Your task to perform on an android device: Open Android settings Image 0: 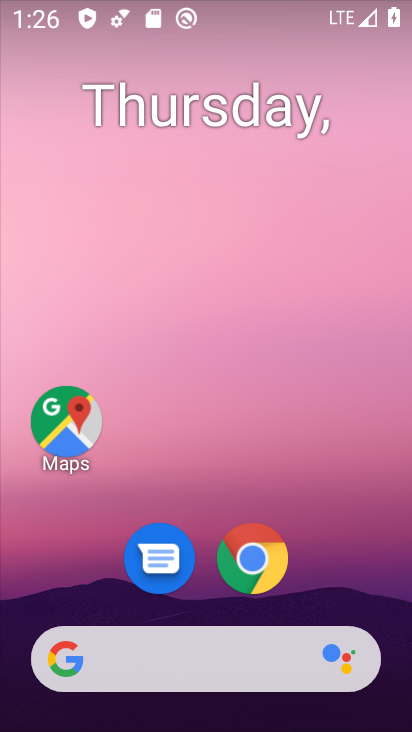
Step 0: drag from (333, 577) to (335, 135)
Your task to perform on an android device: Open Android settings Image 1: 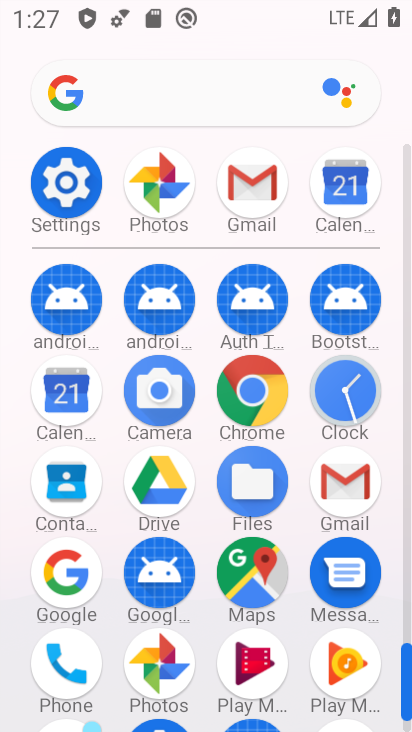
Step 1: drag from (406, 683) to (375, 730)
Your task to perform on an android device: Open Android settings Image 2: 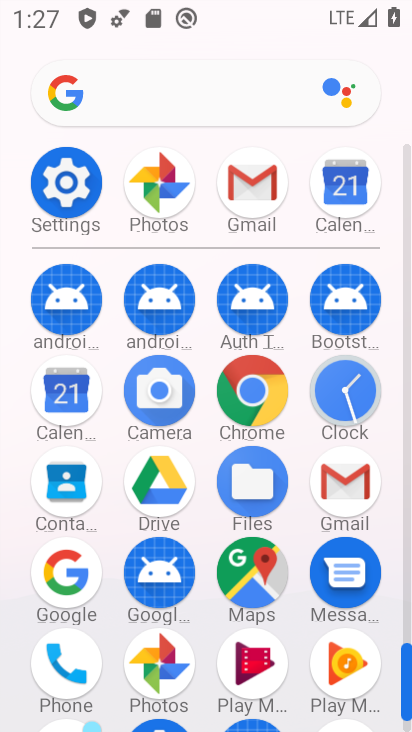
Step 2: click (59, 190)
Your task to perform on an android device: Open Android settings Image 3: 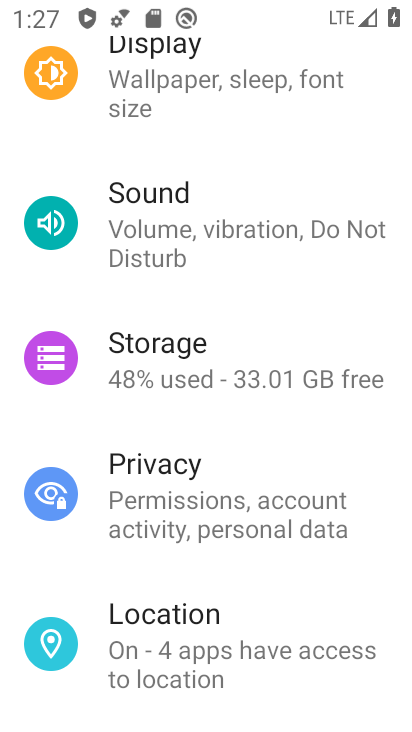
Step 3: drag from (249, 678) to (229, 402)
Your task to perform on an android device: Open Android settings Image 4: 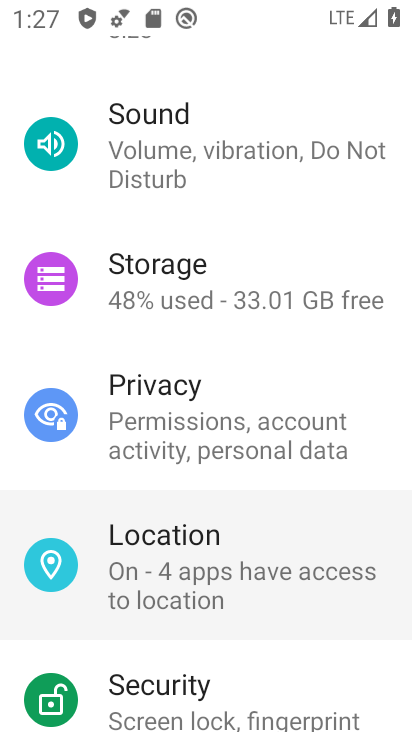
Step 4: click (231, 227)
Your task to perform on an android device: Open Android settings Image 5: 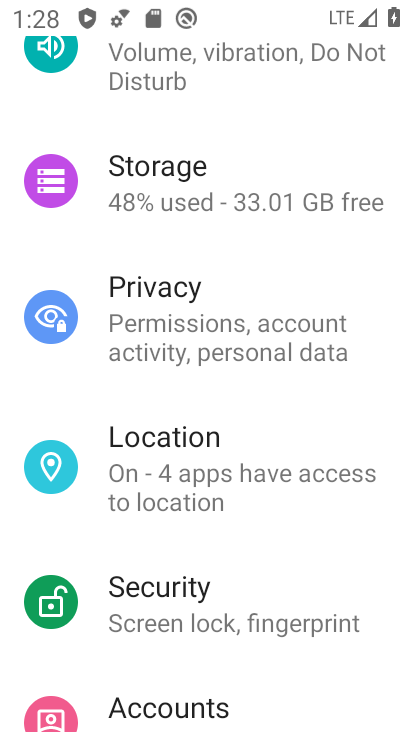
Step 5: drag from (304, 600) to (265, 298)
Your task to perform on an android device: Open Android settings Image 6: 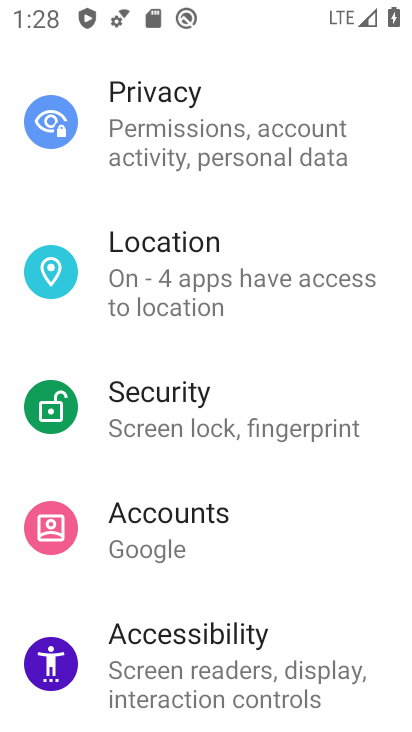
Step 6: drag from (300, 608) to (275, 286)
Your task to perform on an android device: Open Android settings Image 7: 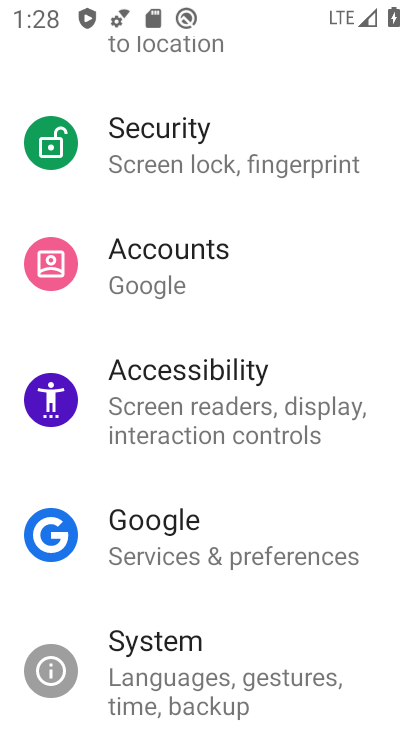
Step 7: drag from (277, 656) to (254, 188)
Your task to perform on an android device: Open Android settings Image 8: 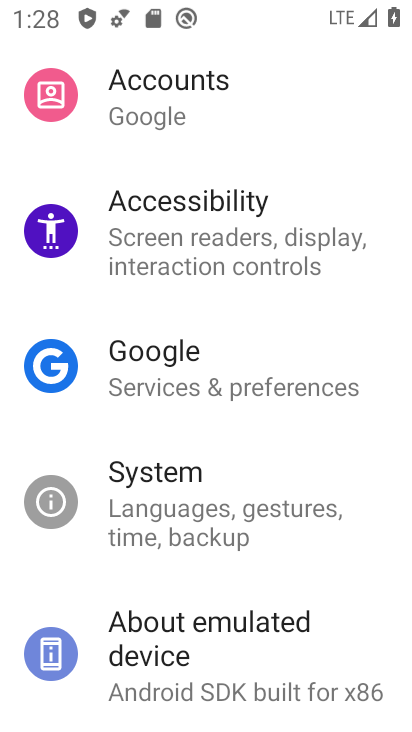
Step 8: click (220, 639)
Your task to perform on an android device: Open Android settings Image 9: 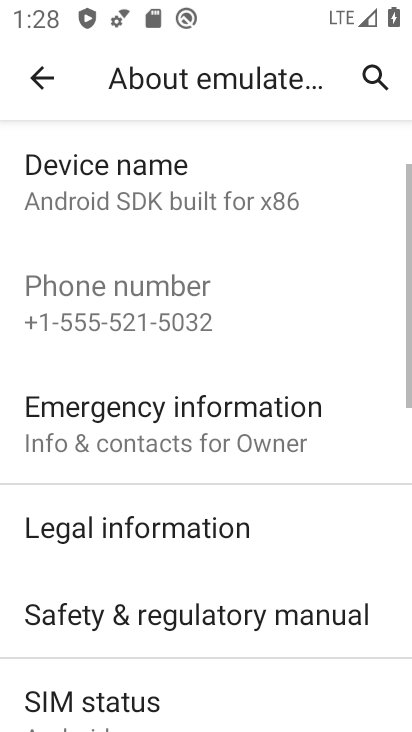
Step 9: drag from (269, 620) to (248, 176)
Your task to perform on an android device: Open Android settings Image 10: 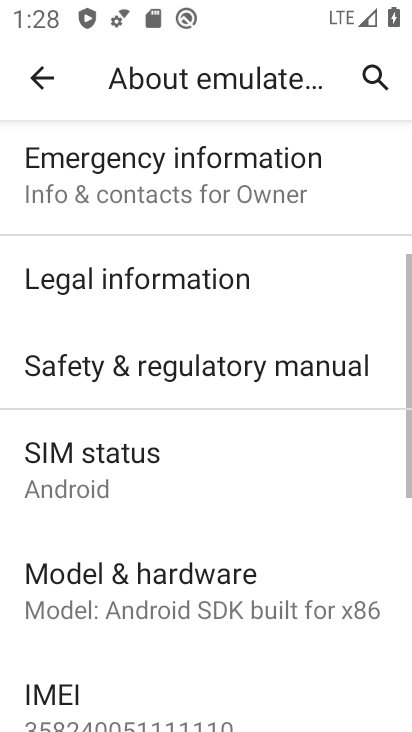
Step 10: drag from (234, 580) to (194, 172)
Your task to perform on an android device: Open Android settings Image 11: 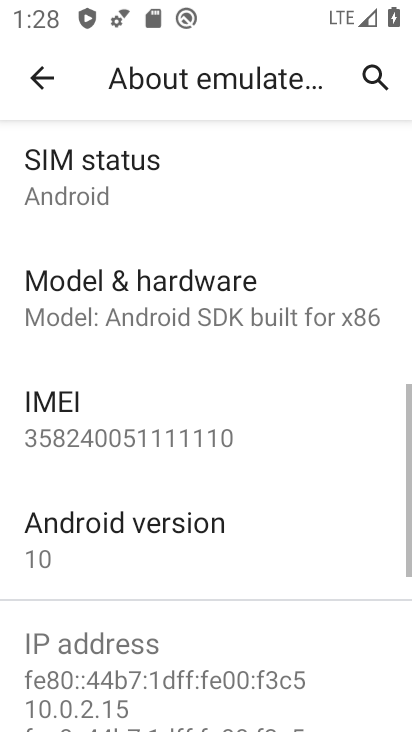
Step 11: click (222, 535)
Your task to perform on an android device: Open Android settings Image 12: 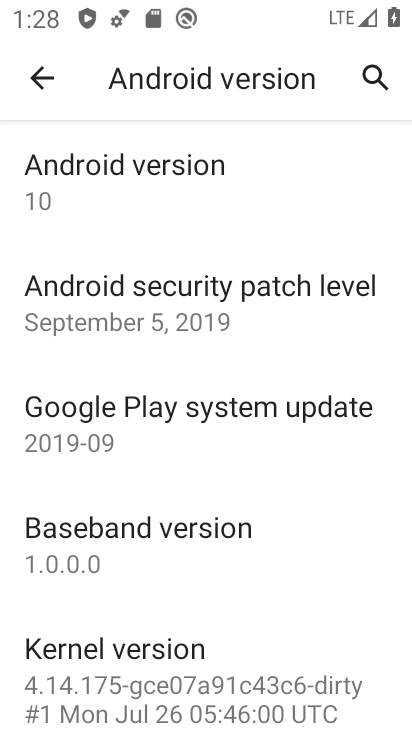
Step 12: task complete